Your task to perform on an android device: Go to battery settings Image 0: 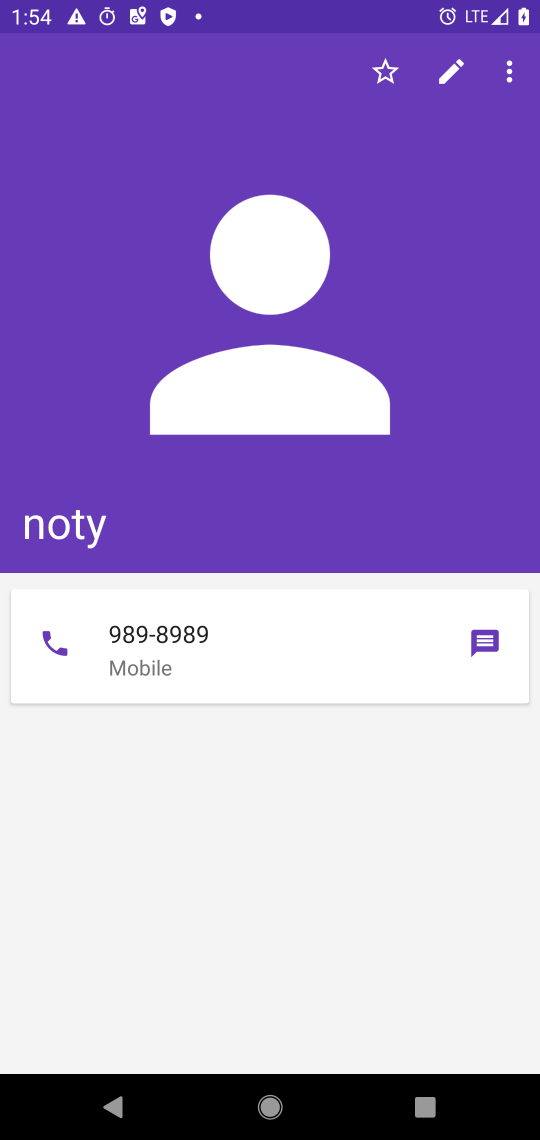
Step 0: press home button
Your task to perform on an android device: Go to battery settings Image 1: 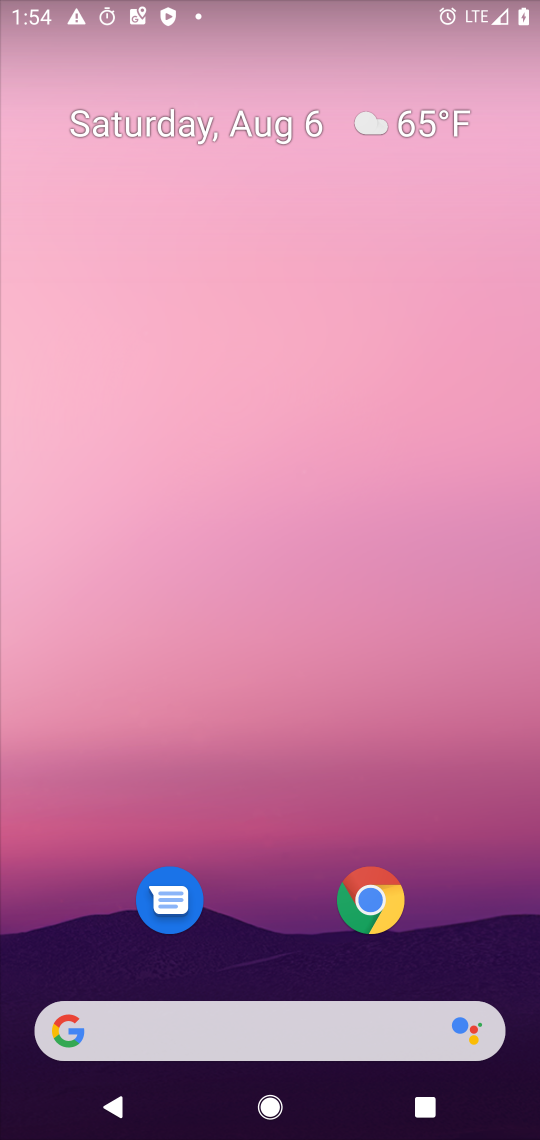
Step 1: drag from (248, 894) to (248, 177)
Your task to perform on an android device: Go to battery settings Image 2: 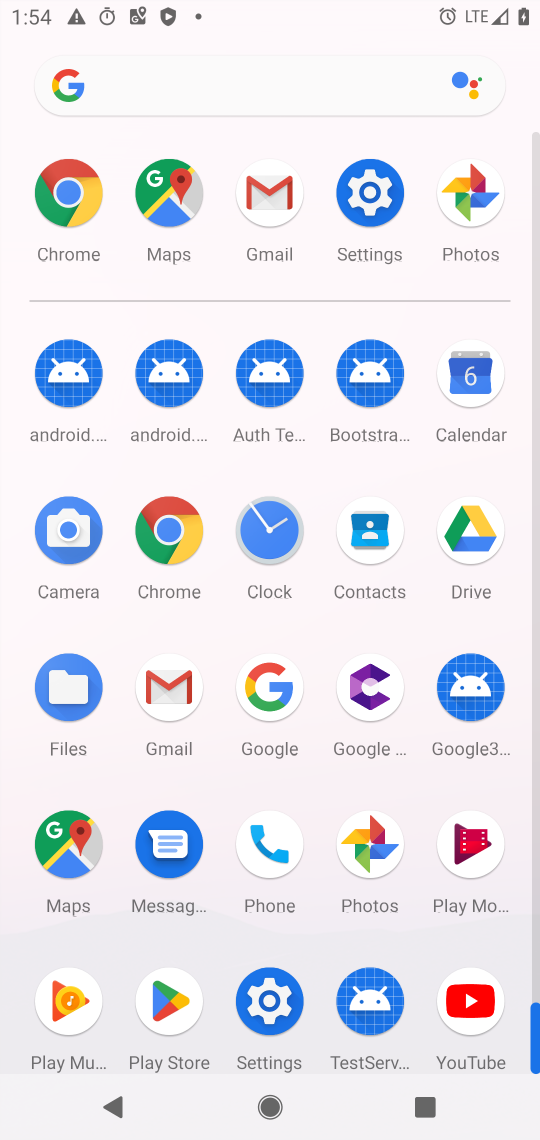
Step 2: click (373, 195)
Your task to perform on an android device: Go to battery settings Image 3: 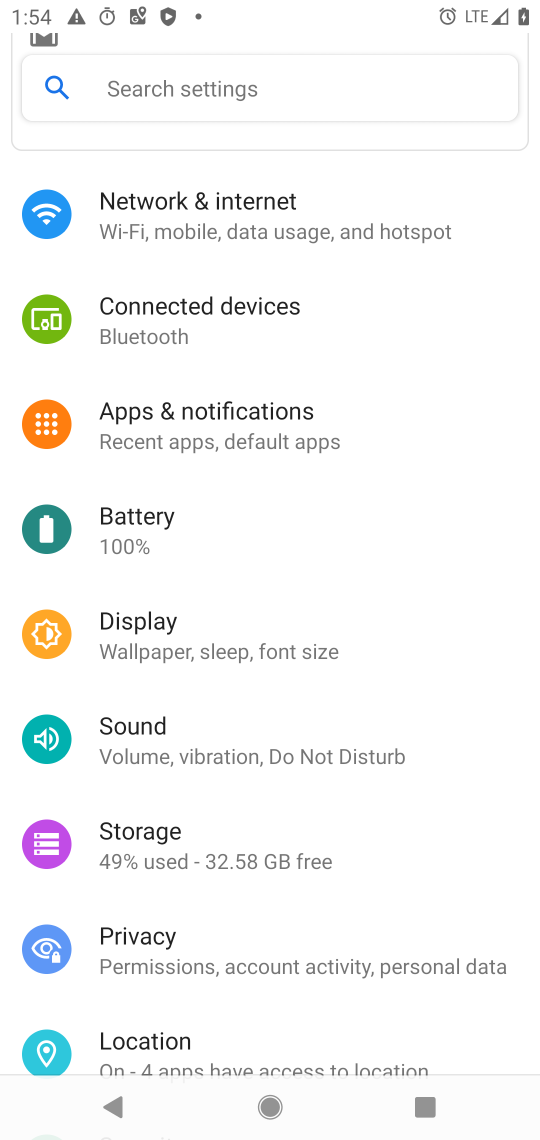
Step 3: click (103, 510)
Your task to perform on an android device: Go to battery settings Image 4: 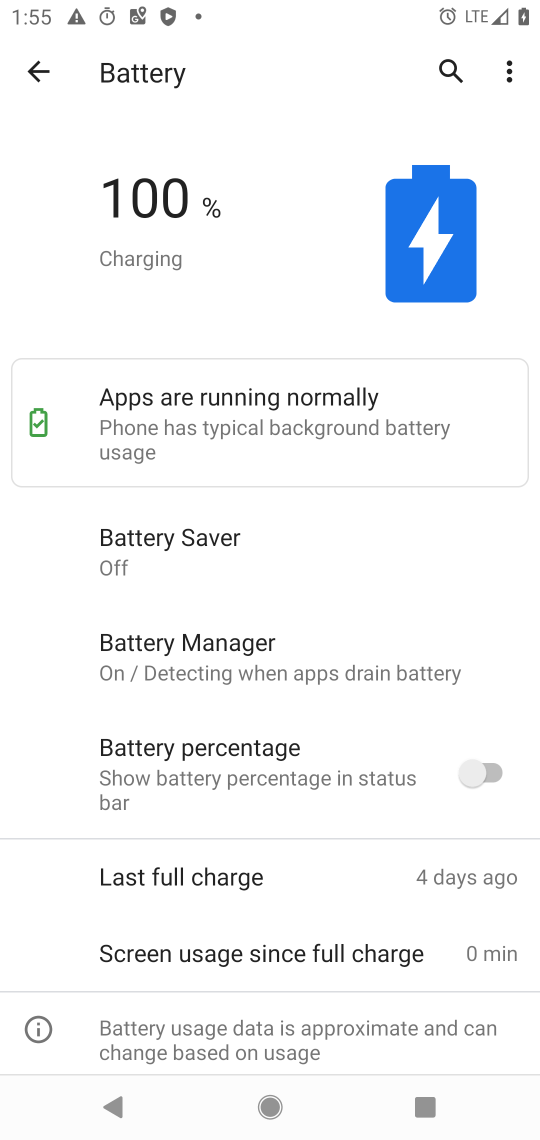
Step 4: task complete